Your task to perform on an android device: empty trash in the gmail app Image 0: 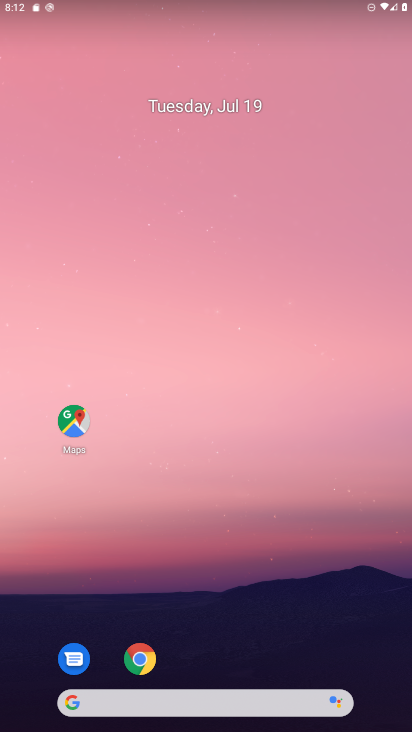
Step 0: drag from (301, 682) to (296, 249)
Your task to perform on an android device: empty trash in the gmail app Image 1: 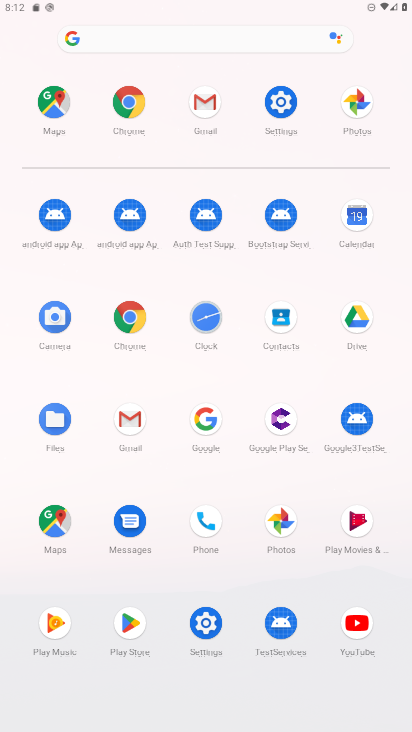
Step 1: click (206, 107)
Your task to perform on an android device: empty trash in the gmail app Image 2: 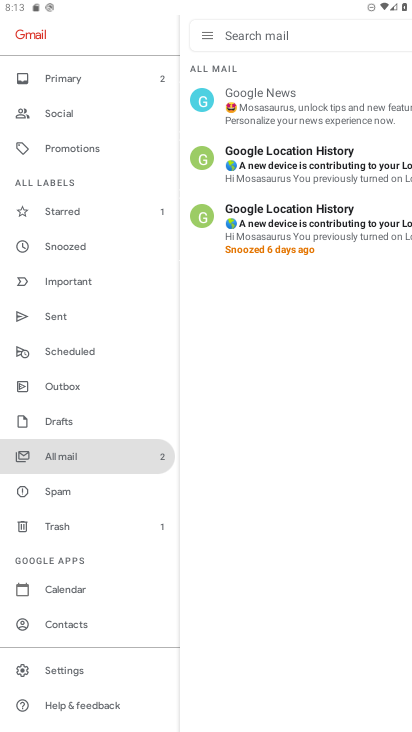
Step 2: click (54, 522)
Your task to perform on an android device: empty trash in the gmail app Image 3: 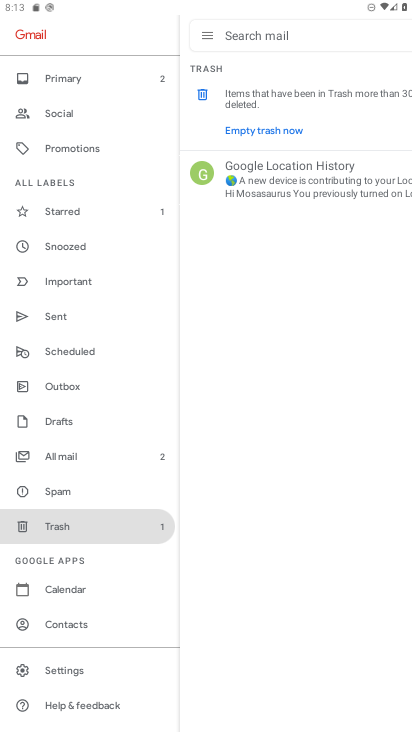
Step 3: task complete